Your task to perform on an android device: set an alarm Image 0: 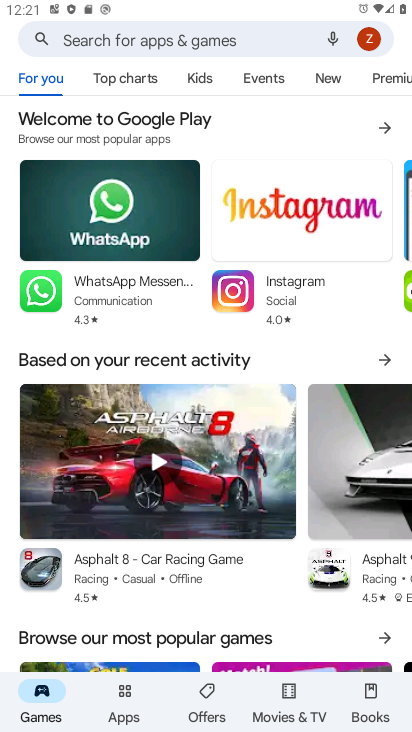
Step 0: press home button
Your task to perform on an android device: set an alarm Image 1: 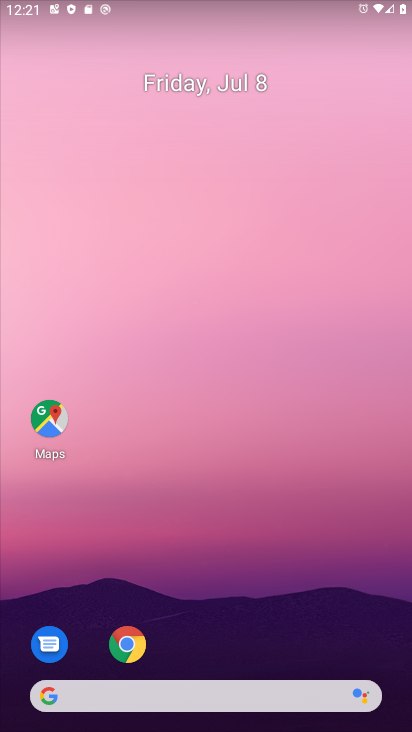
Step 1: drag from (275, 640) to (405, 454)
Your task to perform on an android device: set an alarm Image 2: 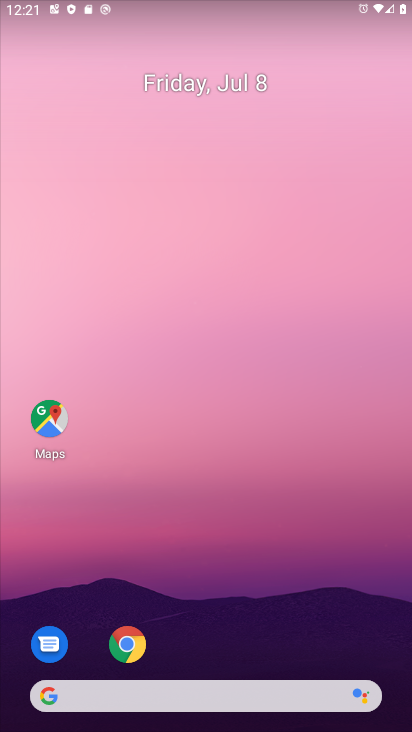
Step 2: drag from (250, 612) to (232, 14)
Your task to perform on an android device: set an alarm Image 3: 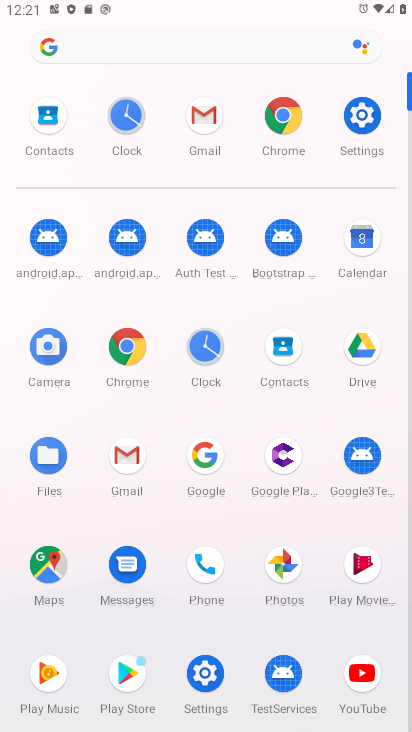
Step 3: click (203, 354)
Your task to perform on an android device: set an alarm Image 4: 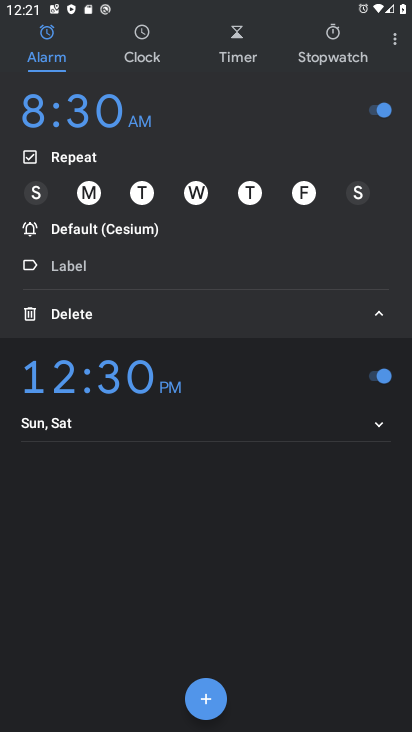
Step 4: click (199, 701)
Your task to perform on an android device: set an alarm Image 5: 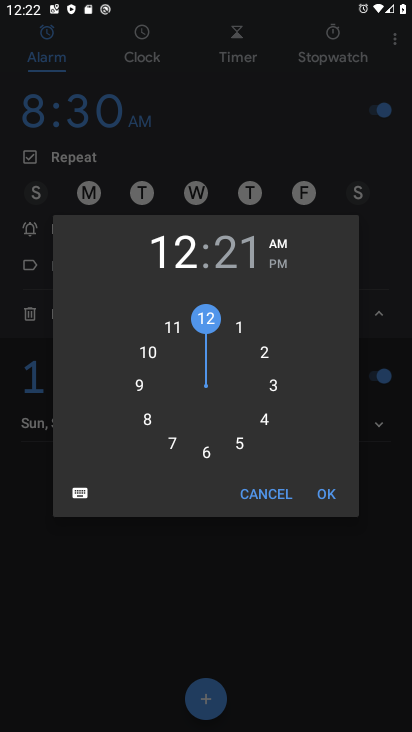
Step 5: click (151, 419)
Your task to perform on an android device: set an alarm Image 6: 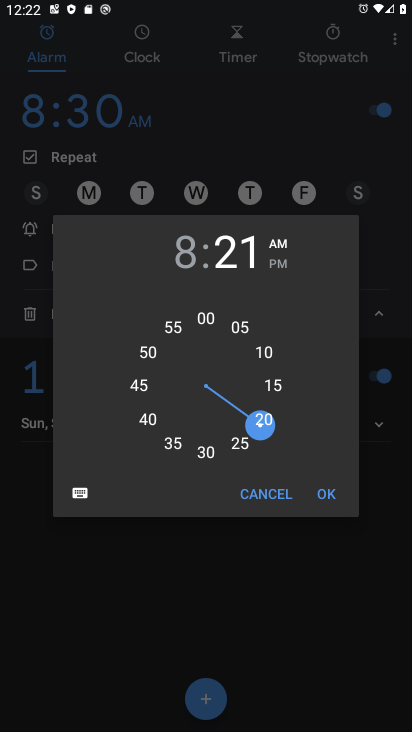
Step 6: click (160, 355)
Your task to perform on an android device: set an alarm Image 7: 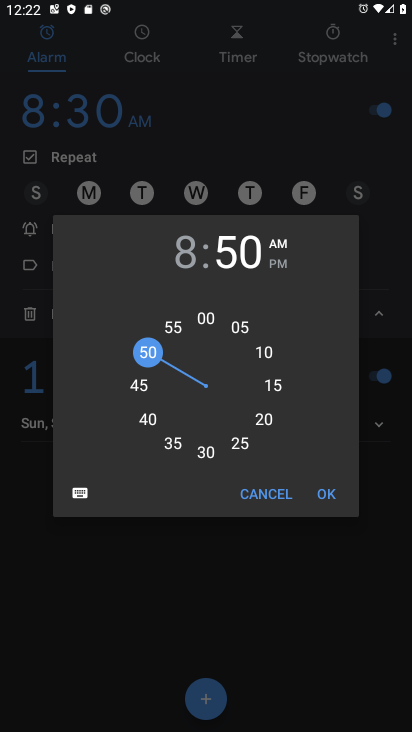
Step 7: click (273, 268)
Your task to perform on an android device: set an alarm Image 8: 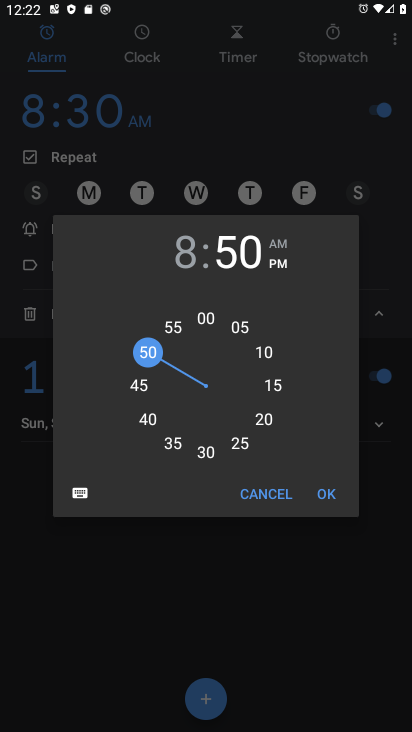
Step 8: click (336, 499)
Your task to perform on an android device: set an alarm Image 9: 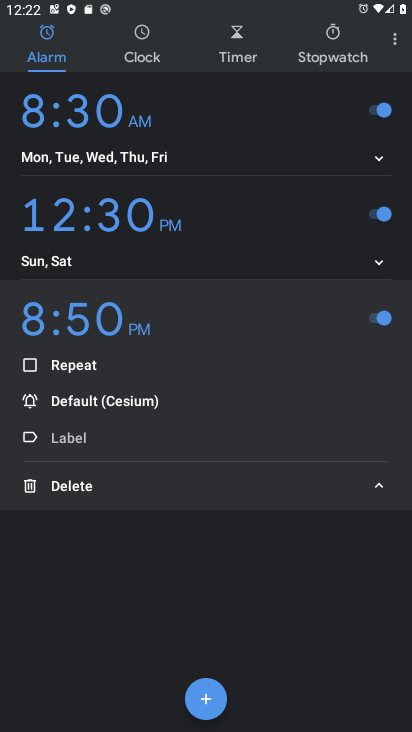
Step 9: click (108, 400)
Your task to perform on an android device: set an alarm Image 10: 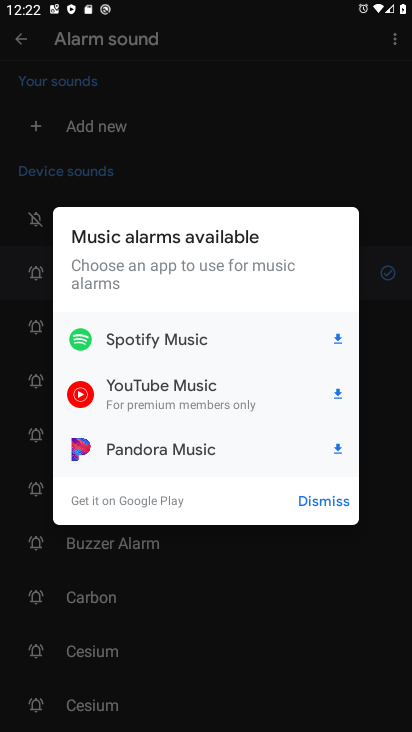
Step 10: click (314, 500)
Your task to perform on an android device: set an alarm Image 11: 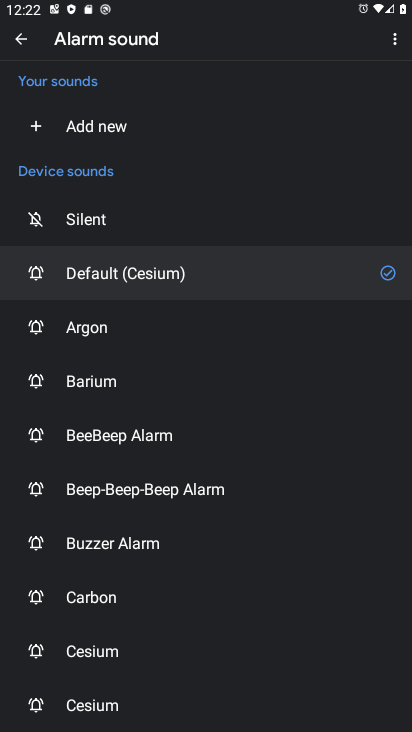
Step 11: click (135, 550)
Your task to perform on an android device: set an alarm Image 12: 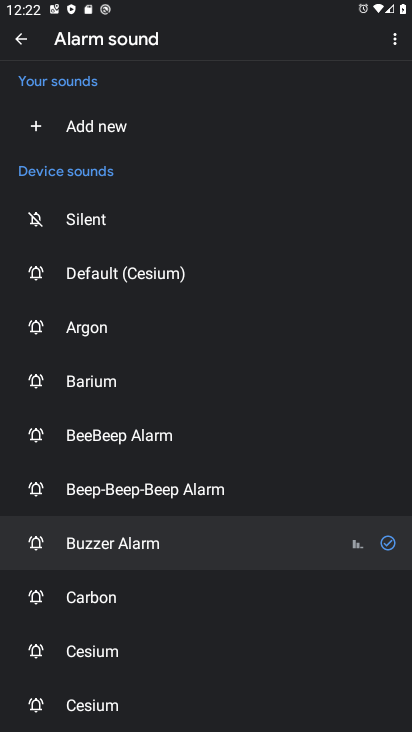
Step 12: click (30, 43)
Your task to perform on an android device: set an alarm Image 13: 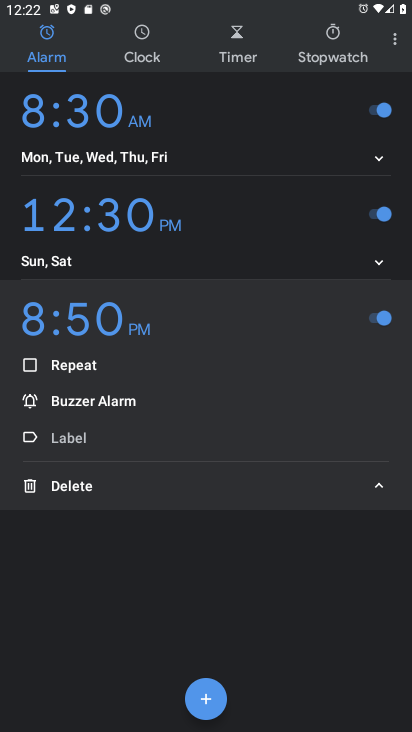
Step 13: task complete